Your task to perform on an android device: Toggle the flashlight Image 0: 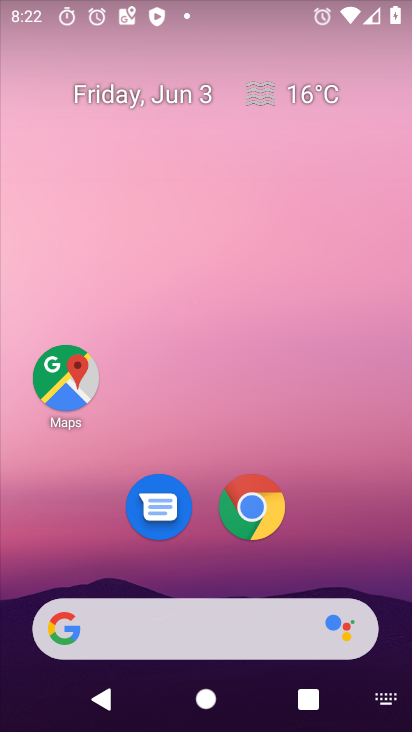
Step 0: drag from (251, 61) to (249, 533)
Your task to perform on an android device: Toggle the flashlight Image 1: 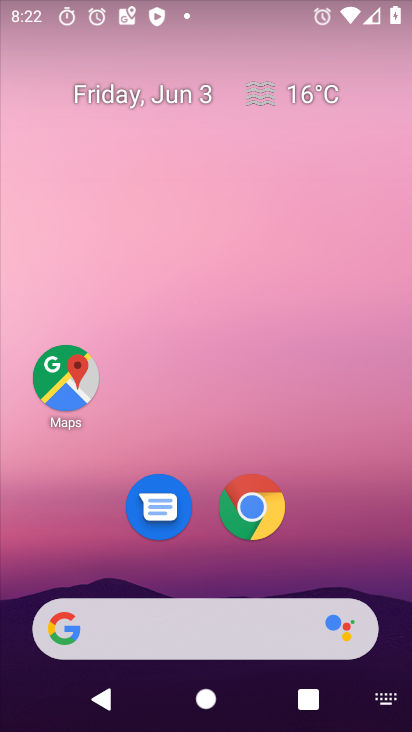
Step 1: task complete